Your task to perform on an android device: find snoozed emails in the gmail app Image 0: 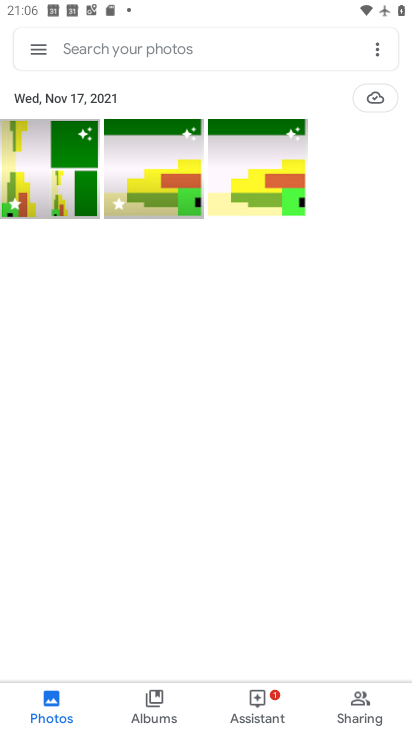
Step 0: press home button
Your task to perform on an android device: find snoozed emails in the gmail app Image 1: 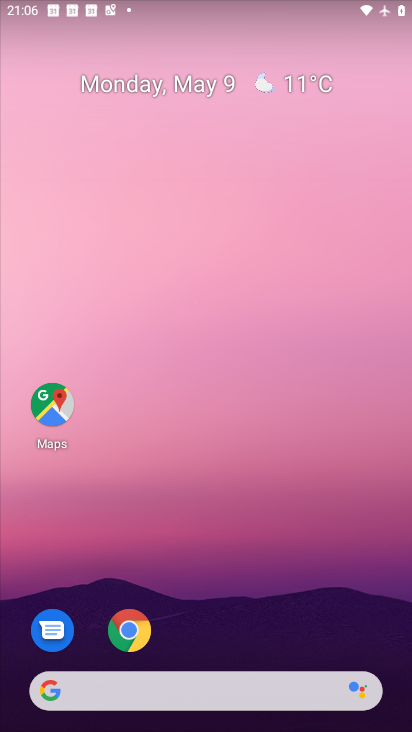
Step 1: drag from (208, 517) to (180, 67)
Your task to perform on an android device: find snoozed emails in the gmail app Image 2: 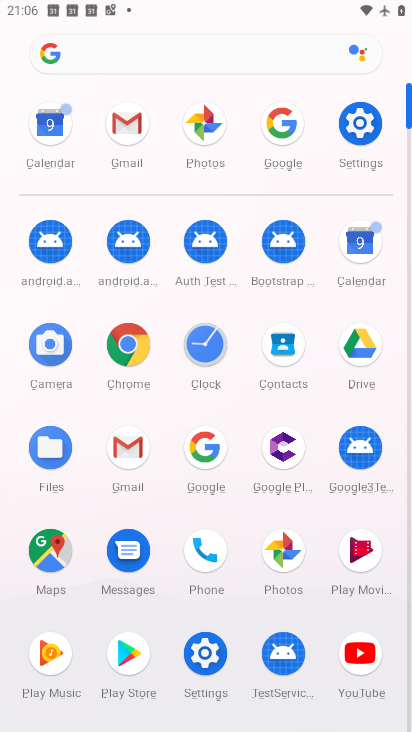
Step 2: click (140, 449)
Your task to perform on an android device: find snoozed emails in the gmail app Image 3: 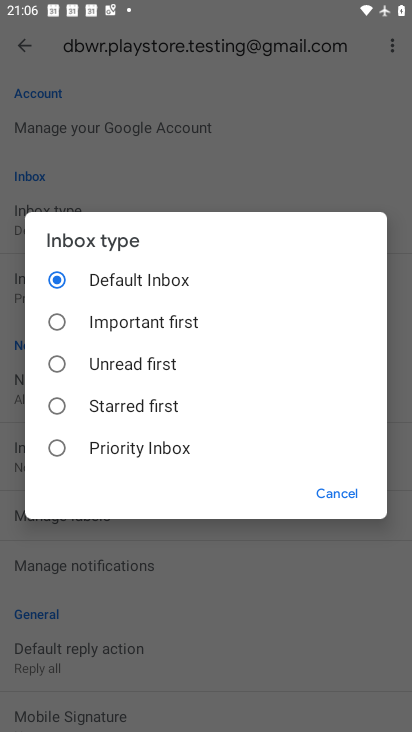
Step 3: press back button
Your task to perform on an android device: find snoozed emails in the gmail app Image 4: 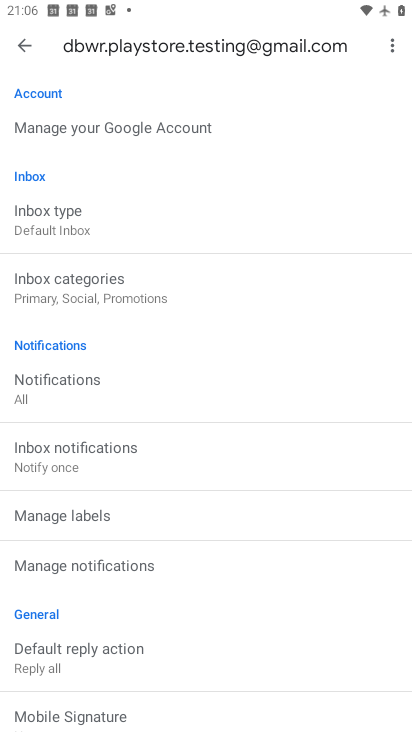
Step 4: press back button
Your task to perform on an android device: find snoozed emails in the gmail app Image 5: 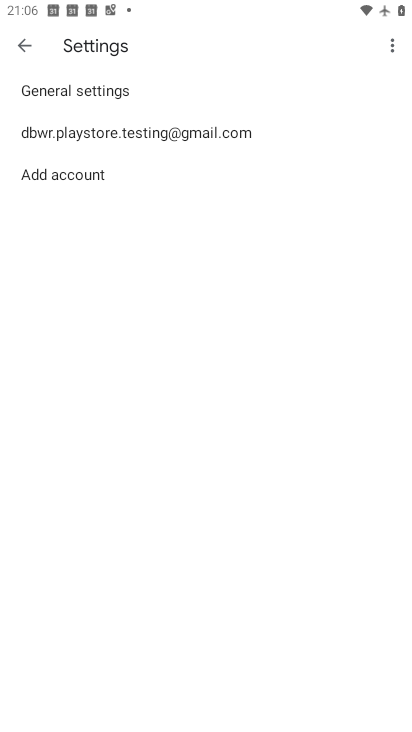
Step 5: press back button
Your task to perform on an android device: find snoozed emails in the gmail app Image 6: 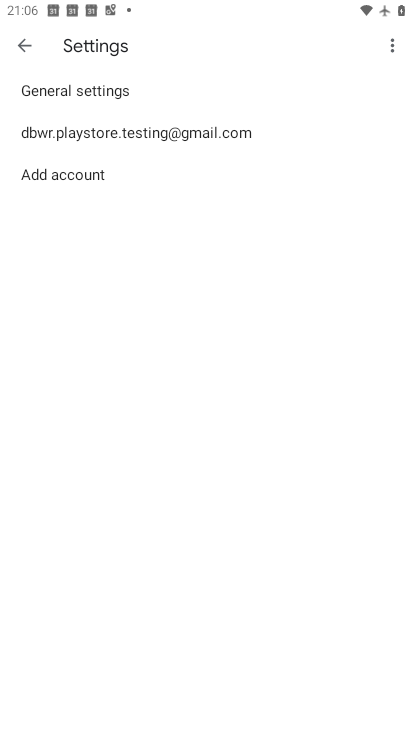
Step 6: press back button
Your task to perform on an android device: find snoozed emails in the gmail app Image 7: 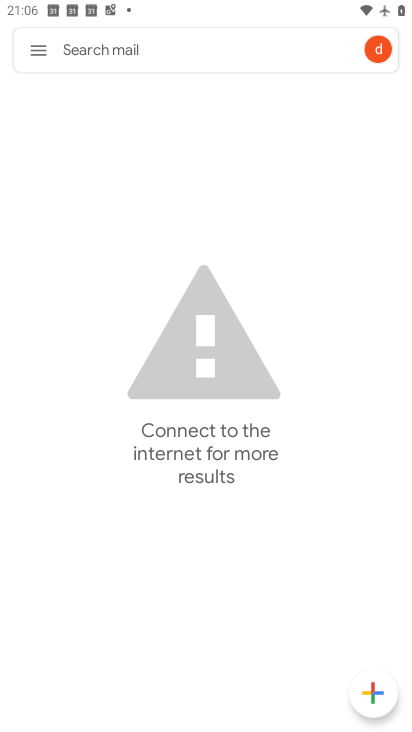
Step 7: click (42, 51)
Your task to perform on an android device: find snoozed emails in the gmail app Image 8: 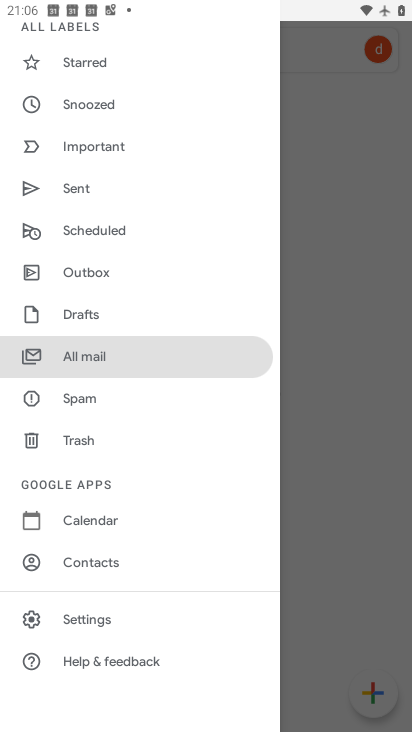
Step 8: click (112, 108)
Your task to perform on an android device: find snoozed emails in the gmail app Image 9: 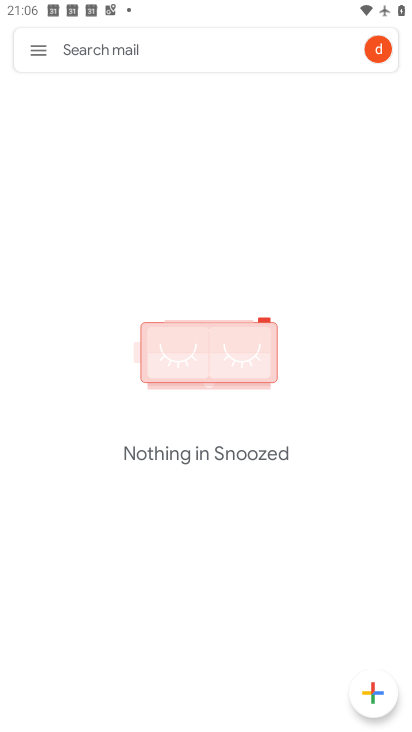
Step 9: task complete